Your task to perform on an android device: Open Yahoo.com Image 0: 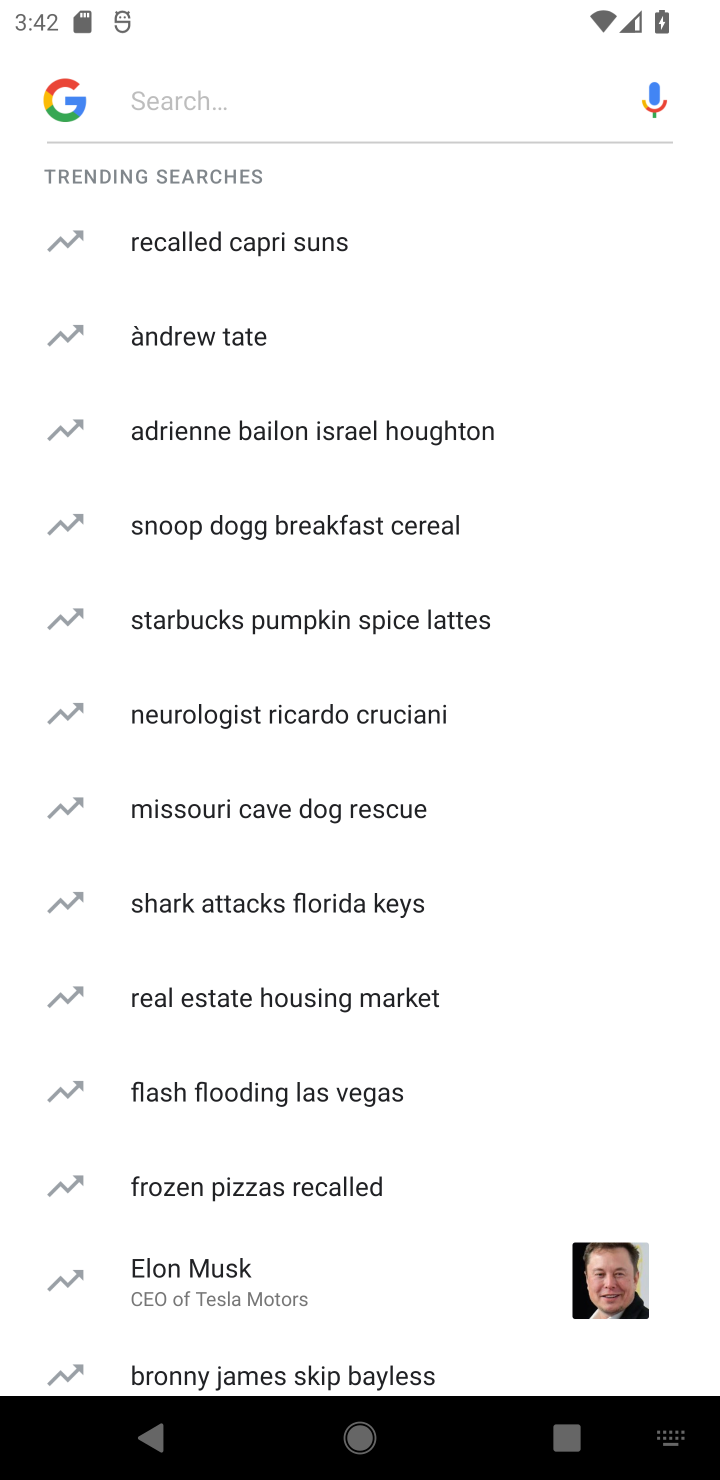
Step 0: type "yahoo.com"
Your task to perform on an android device: Open Yahoo.com Image 1: 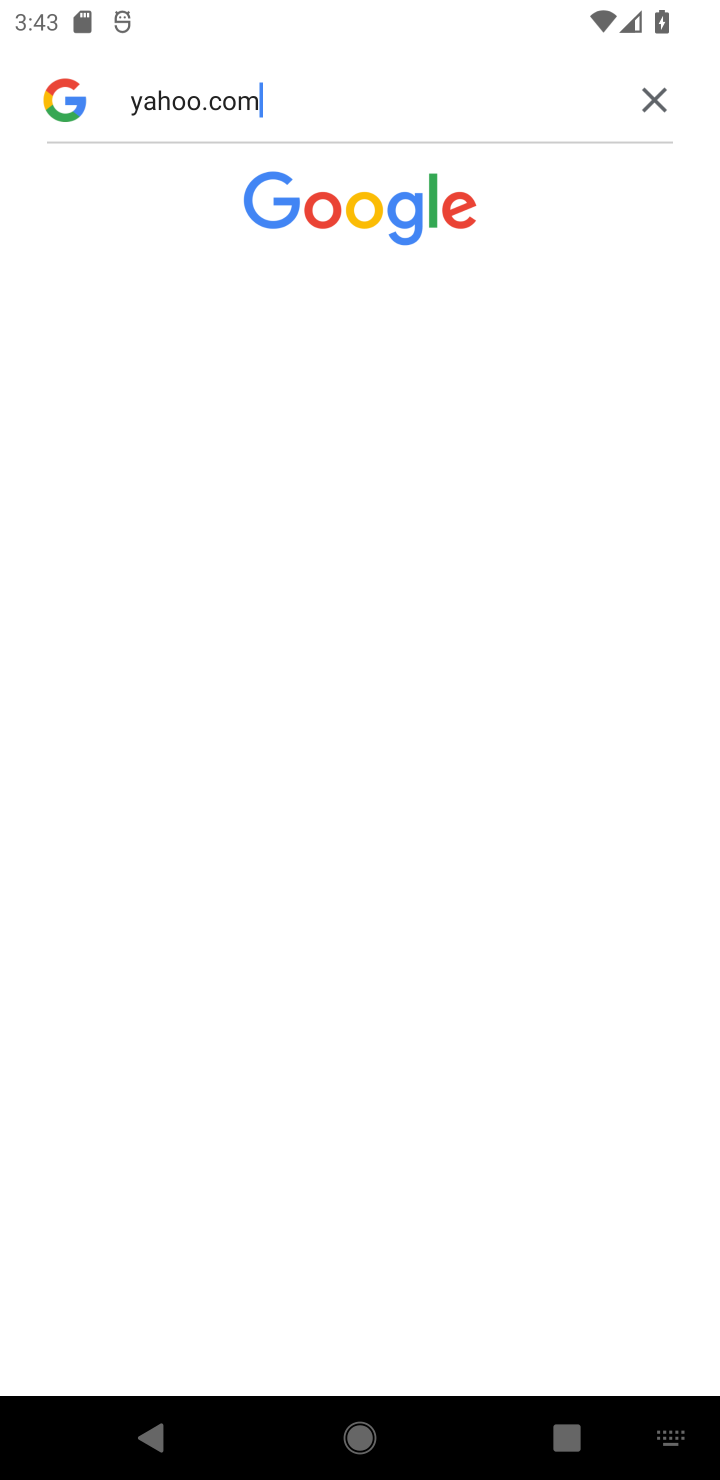
Step 1: task complete